Your task to perform on an android device: change alarm snooze length Image 0: 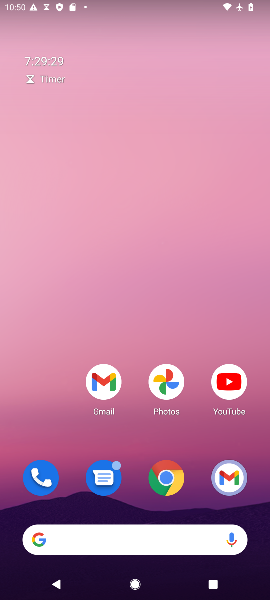
Step 0: drag from (196, 452) to (185, 161)
Your task to perform on an android device: change alarm snooze length Image 1: 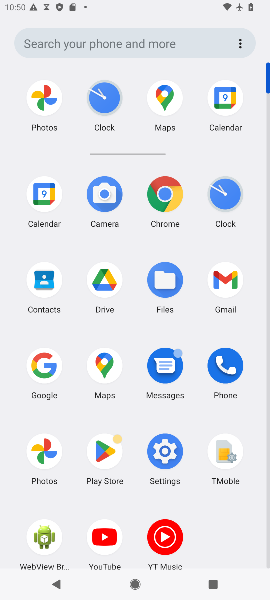
Step 1: click (86, 91)
Your task to perform on an android device: change alarm snooze length Image 2: 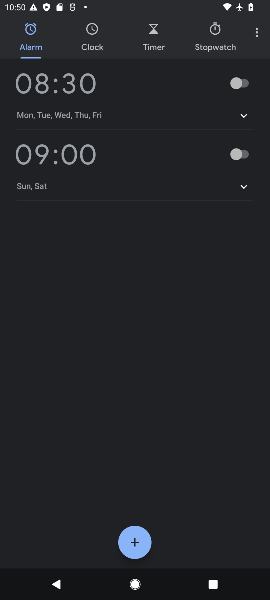
Step 2: click (255, 31)
Your task to perform on an android device: change alarm snooze length Image 3: 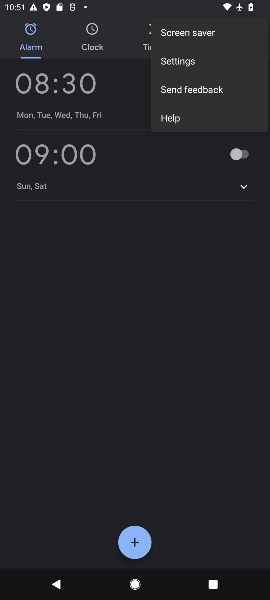
Step 3: click (204, 60)
Your task to perform on an android device: change alarm snooze length Image 4: 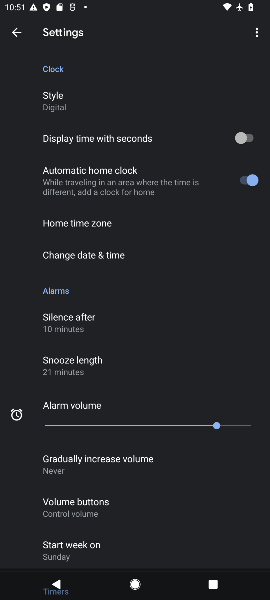
Step 4: click (119, 361)
Your task to perform on an android device: change alarm snooze length Image 5: 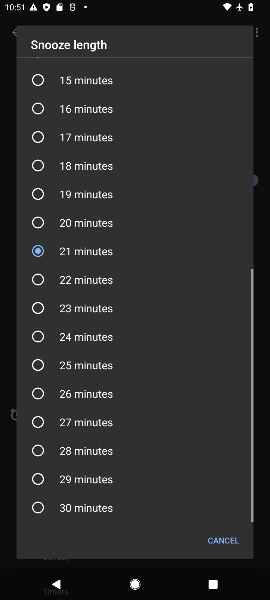
Step 5: click (119, 362)
Your task to perform on an android device: change alarm snooze length Image 6: 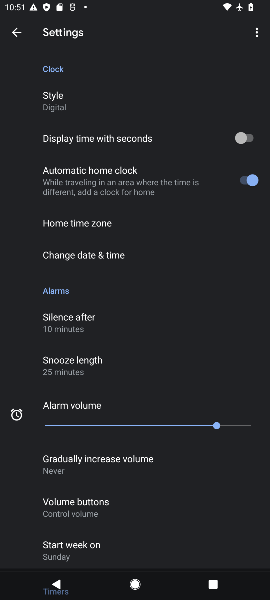
Step 6: task complete